Your task to perform on an android device: Search for a new desk on Ikea Image 0: 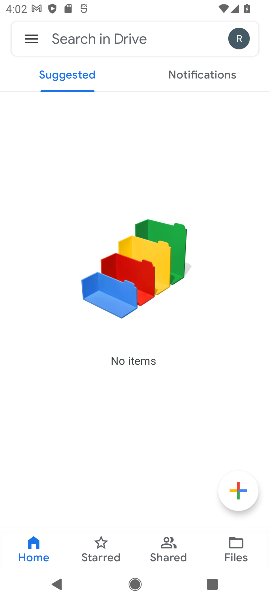
Step 0: press home button
Your task to perform on an android device: Search for a new desk on Ikea Image 1: 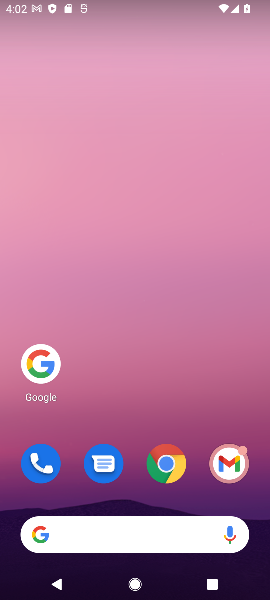
Step 1: click (43, 359)
Your task to perform on an android device: Search for a new desk on Ikea Image 2: 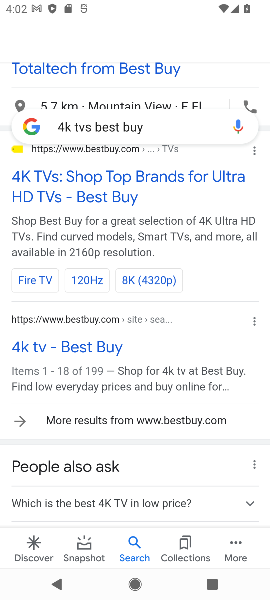
Step 2: click (171, 131)
Your task to perform on an android device: Search for a new desk on Ikea Image 3: 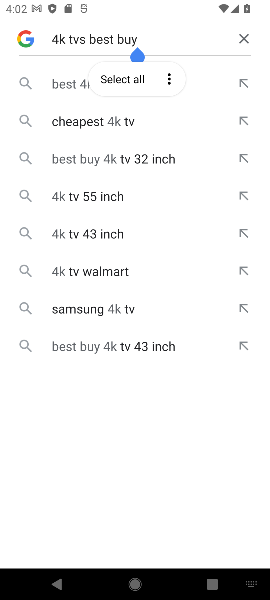
Step 3: click (241, 33)
Your task to perform on an android device: Search for a new desk on Ikea Image 4: 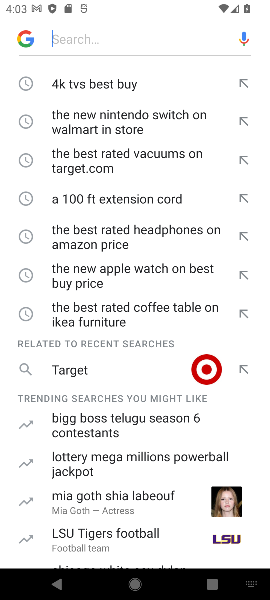
Step 4: click (136, 40)
Your task to perform on an android device: Search for a new desk on Ikea Image 5: 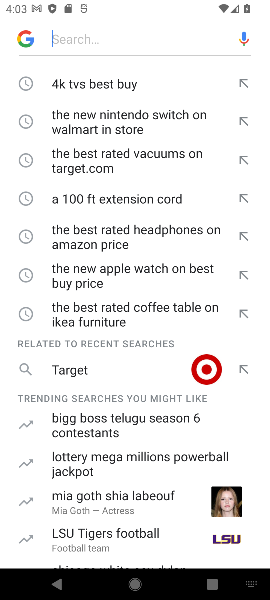
Step 5: type "a new desk on Ikea "
Your task to perform on an android device: Search for a new desk on Ikea Image 6: 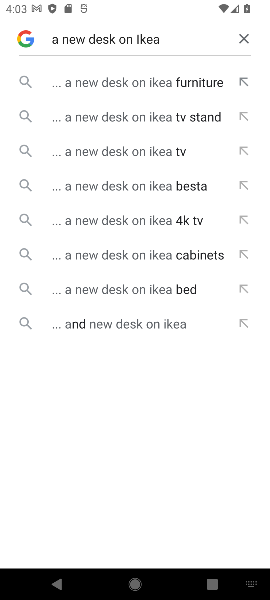
Step 6: click (104, 86)
Your task to perform on an android device: Search for a new desk on Ikea Image 7: 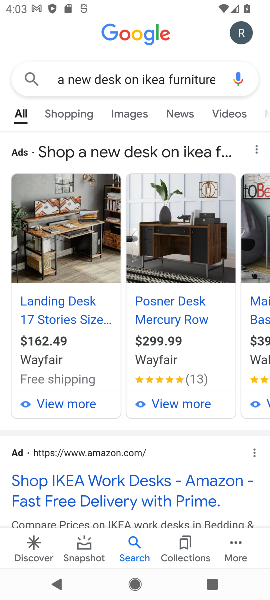
Step 7: drag from (154, 488) to (184, 205)
Your task to perform on an android device: Search for a new desk on Ikea Image 8: 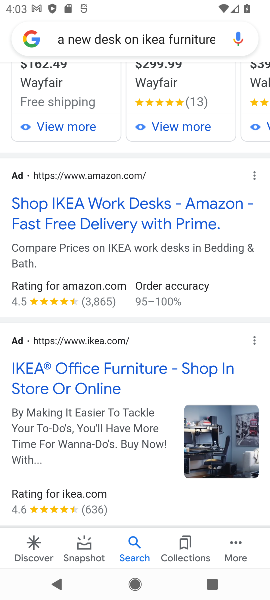
Step 8: click (96, 218)
Your task to perform on an android device: Search for a new desk on Ikea Image 9: 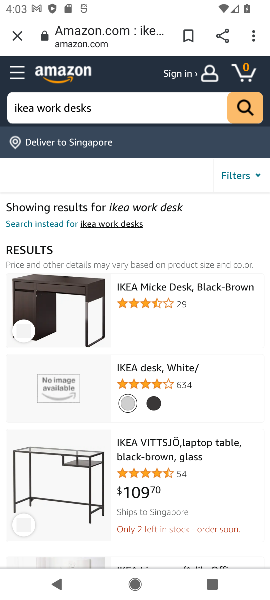
Step 9: task complete